Your task to perform on an android device: Do I have any events today? Image 0: 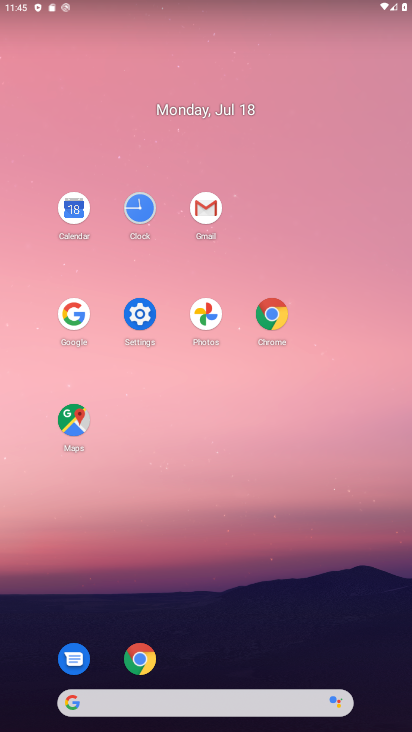
Step 0: click (54, 203)
Your task to perform on an android device: Do I have any events today? Image 1: 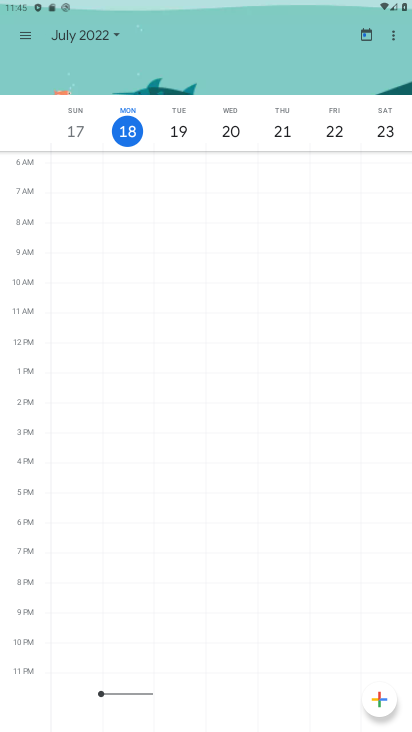
Step 1: click (129, 132)
Your task to perform on an android device: Do I have any events today? Image 2: 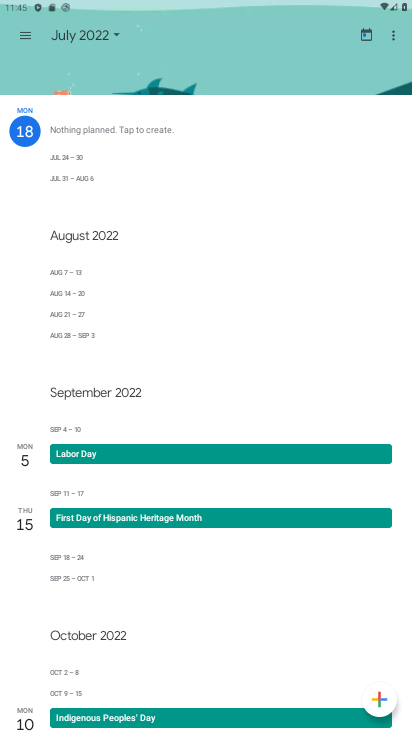
Step 2: task complete